Your task to perform on an android device: Open the stopwatch Image 0: 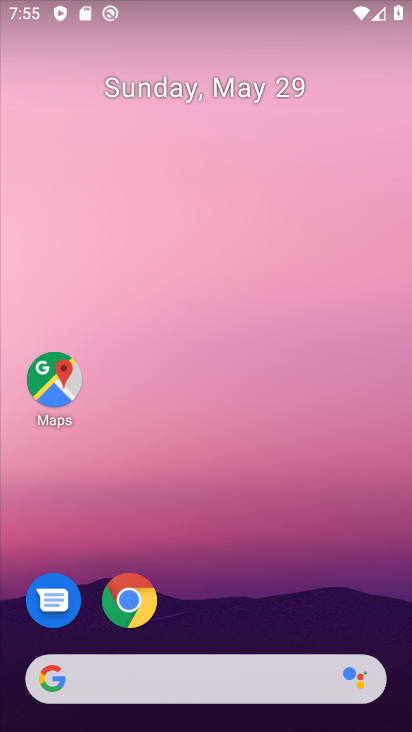
Step 0: drag from (292, 509) to (309, 200)
Your task to perform on an android device: Open the stopwatch Image 1: 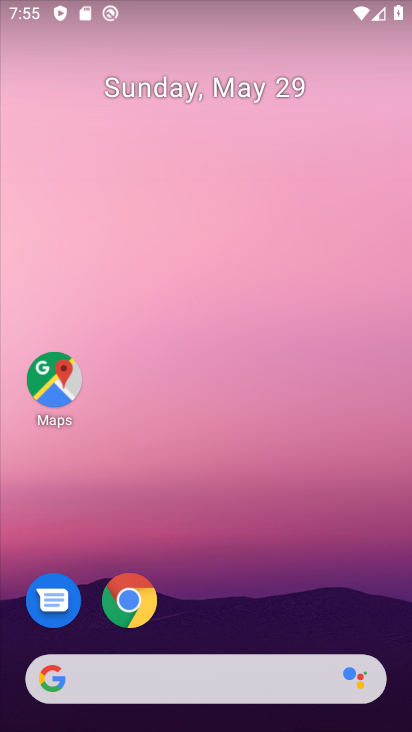
Step 1: drag from (277, 584) to (336, 159)
Your task to perform on an android device: Open the stopwatch Image 2: 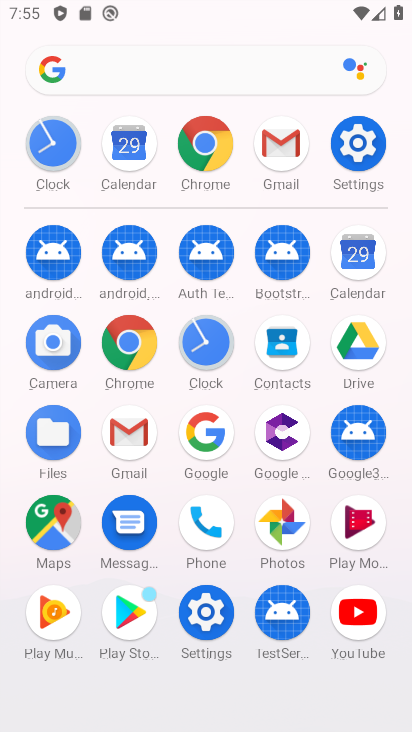
Step 2: click (207, 346)
Your task to perform on an android device: Open the stopwatch Image 3: 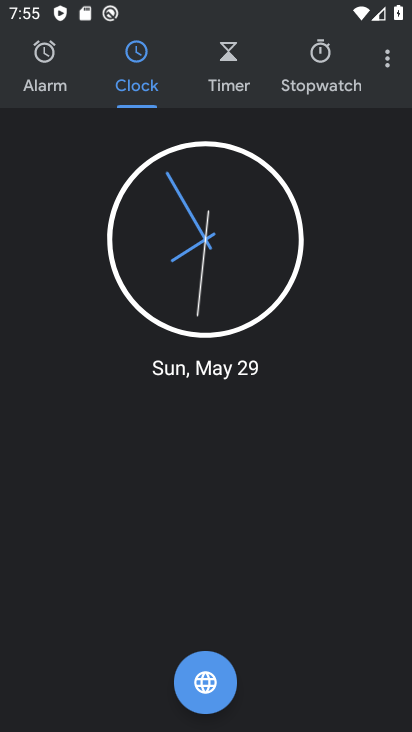
Step 3: click (311, 72)
Your task to perform on an android device: Open the stopwatch Image 4: 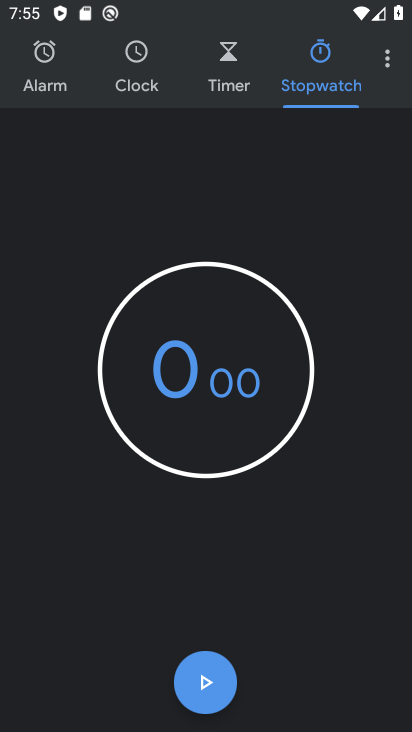
Step 4: task complete